Your task to perform on an android device: Open calendar and show me the third week of next month Image 0: 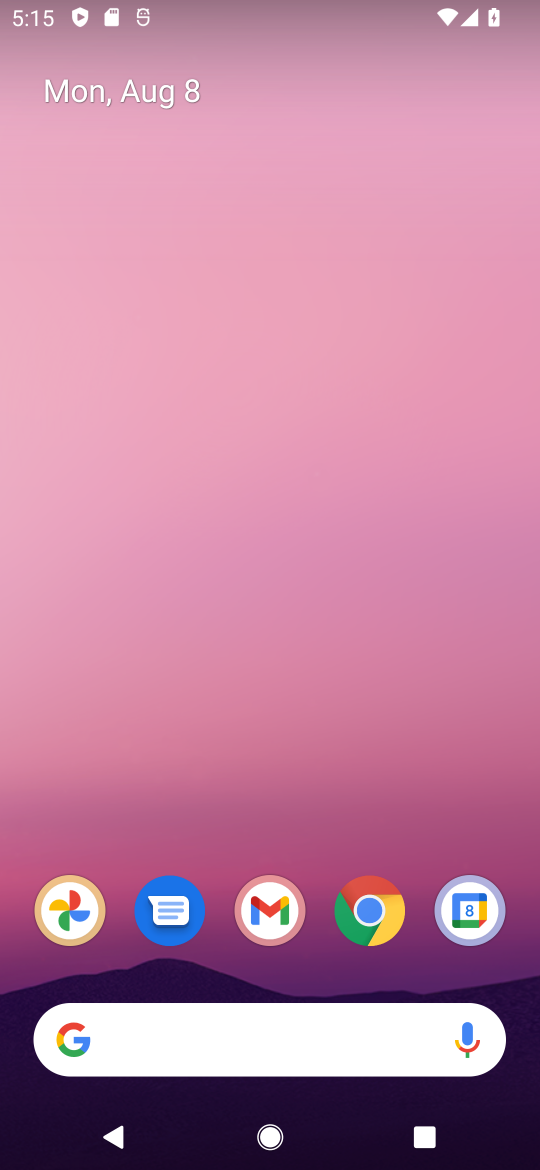
Step 0: drag from (347, 1041) to (432, 358)
Your task to perform on an android device: Open calendar and show me the third week of next month Image 1: 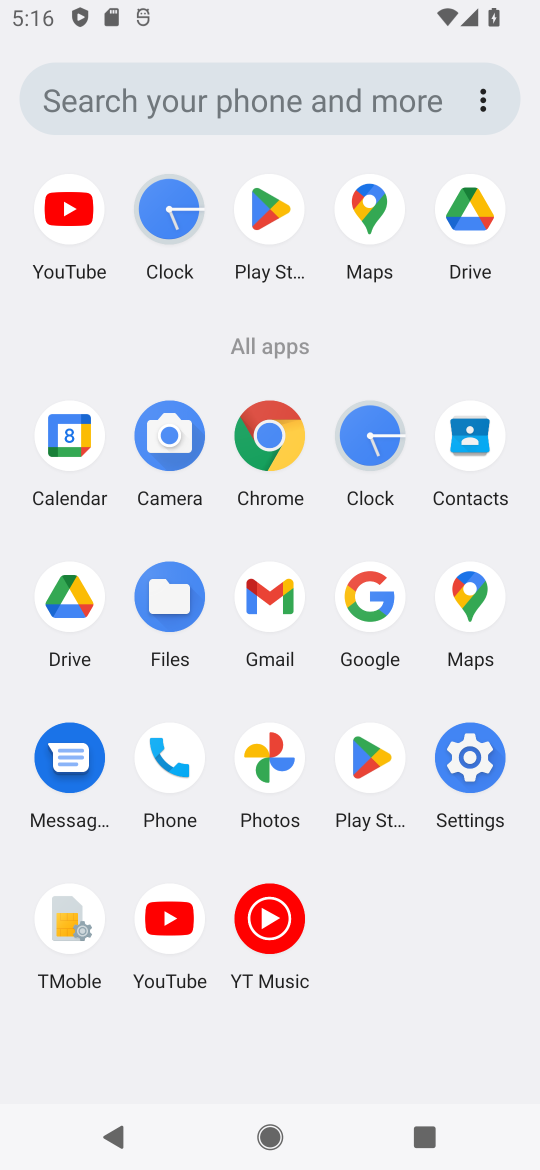
Step 1: click (73, 435)
Your task to perform on an android device: Open calendar and show me the third week of next month Image 2: 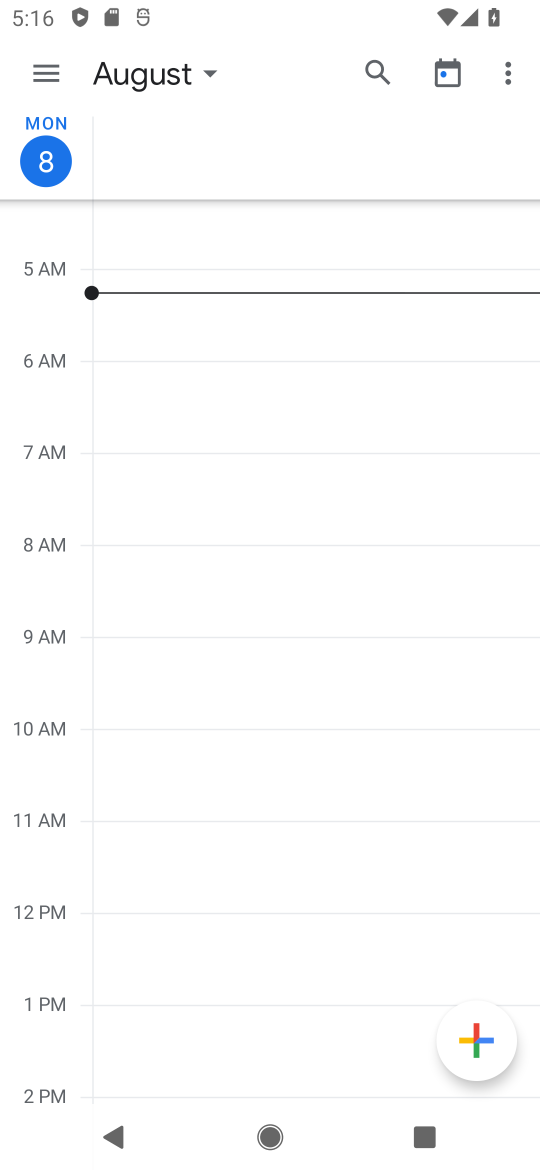
Step 2: click (453, 77)
Your task to perform on an android device: Open calendar and show me the third week of next month Image 3: 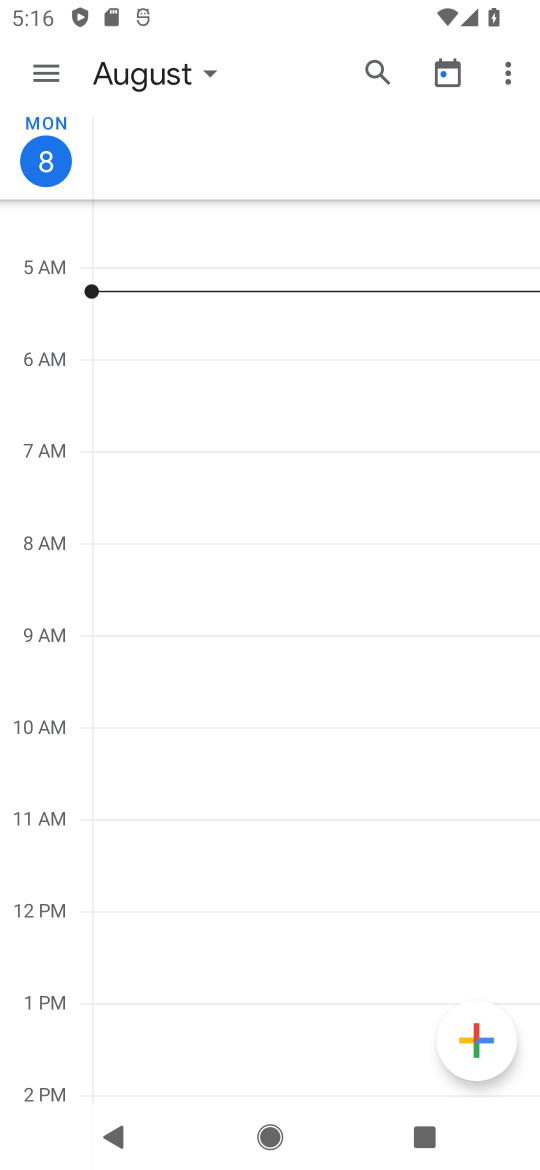
Step 3: click (201, 76)
Your task to perform on an android device: Open calendar and show me the third week of next month Image 4: 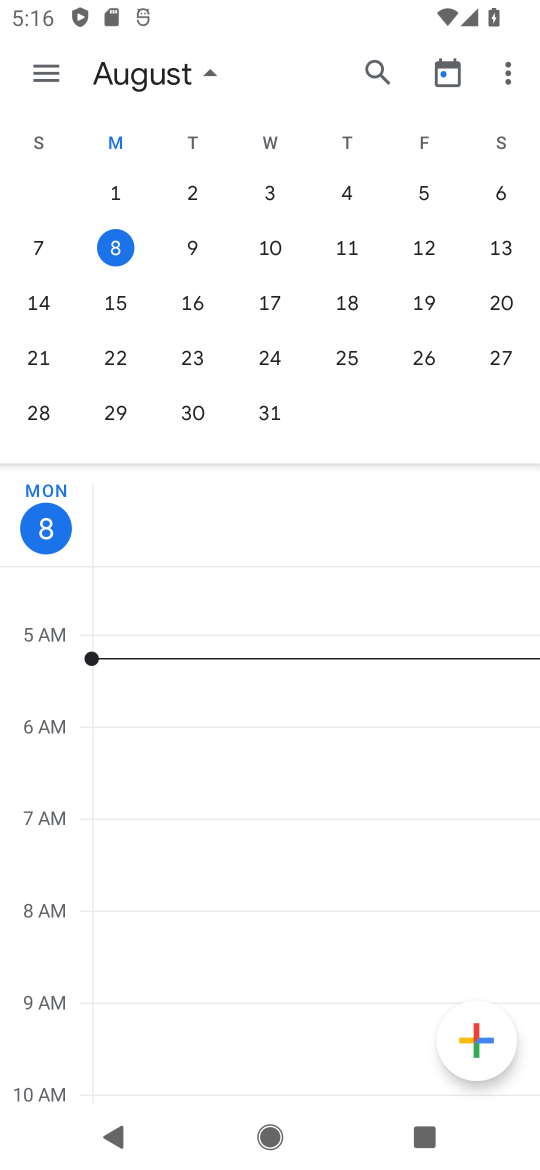
Step 4: drag from (507, 280) to (10, 261)
Your task to perform on an android device: Open calendar and show me the third week of next month Image 5: 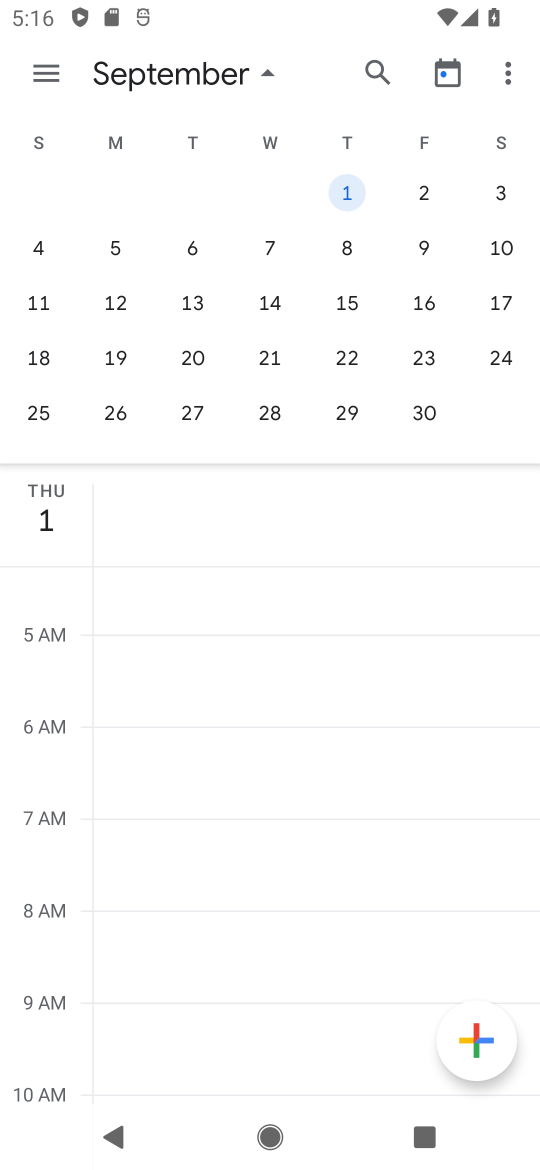
Step 5: click (123, 354)
Your task to perform on an android device: Open calendar and show me the third week of next month Image 6: 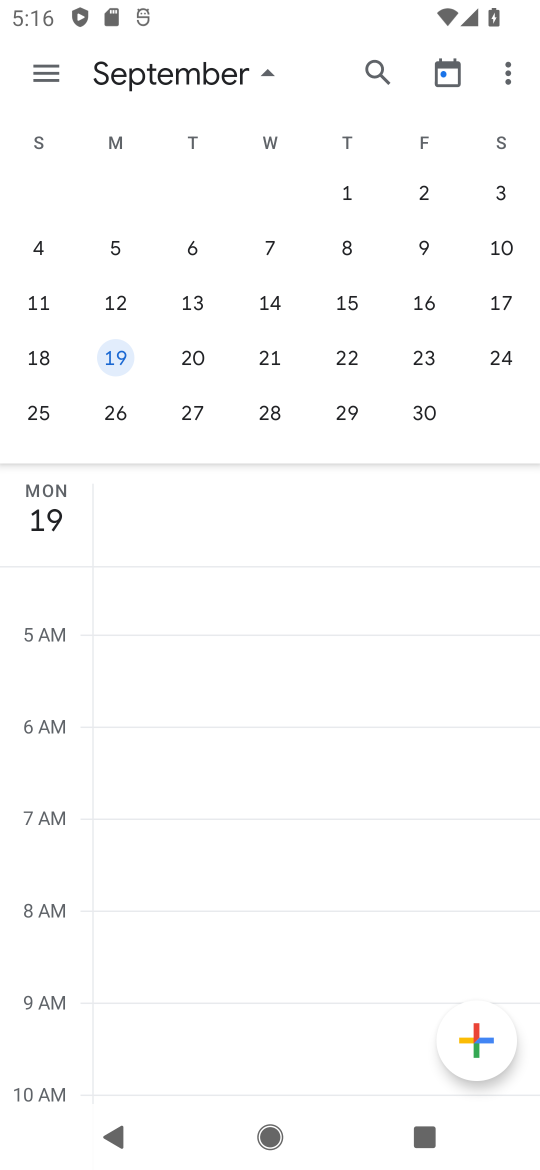
Step 6: click (33, 71)
Your task to perform on an android device: Open calendar and show me the third week of next month Image 7: 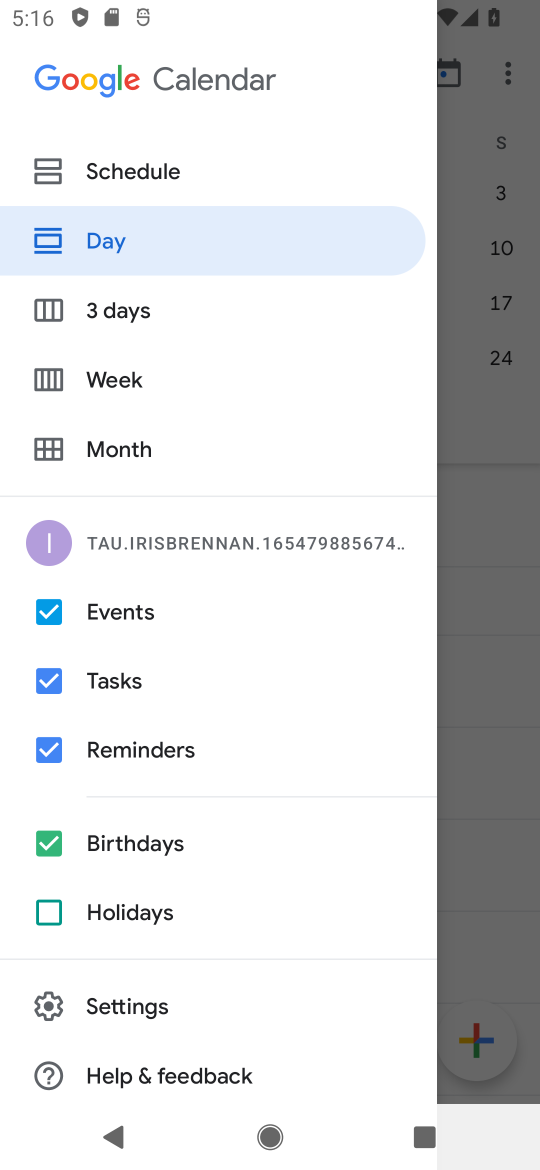
Step 7: click (122, 376)
Your task to perform on an android device: Open calendar and show me the third week of next month Image 8: 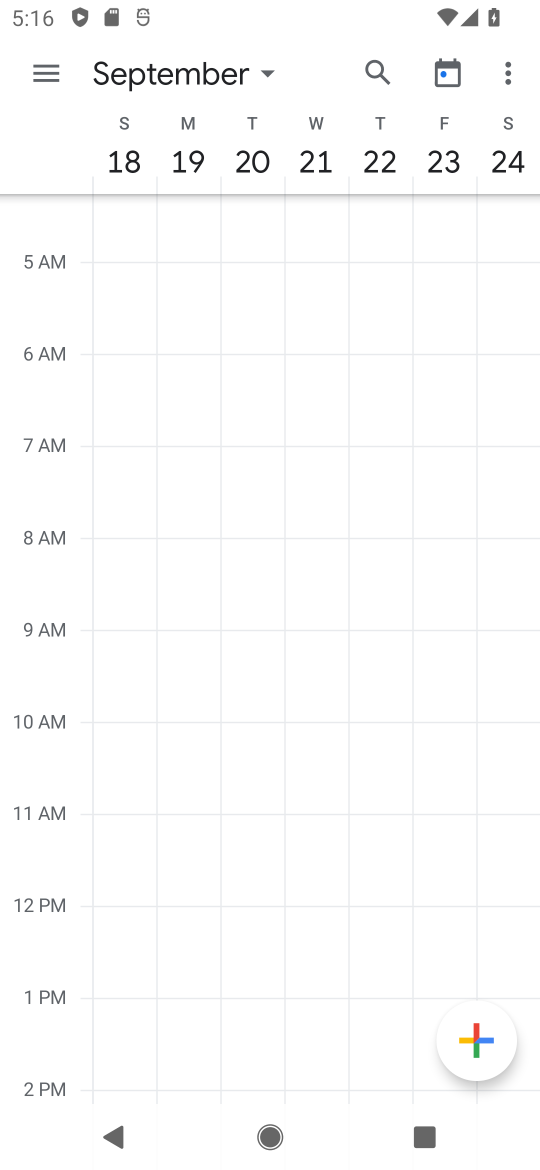
Step 8: task complete